Your task to perform on an android device: Check the settings for the Lyft app Image 0: 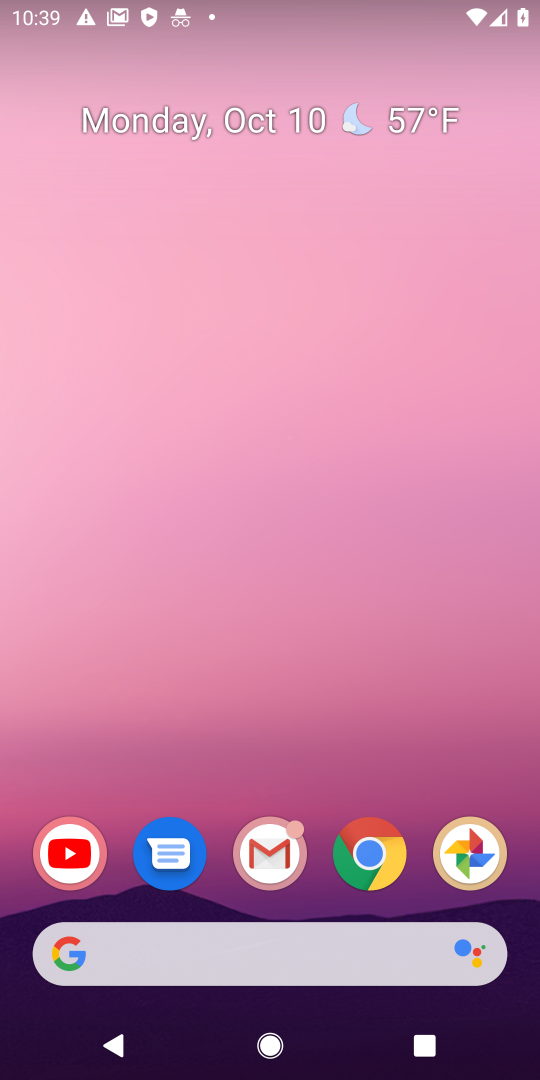
Step 0: press home button
Your task to perform on an android device: Check the settings for the Lyft app Image 1: 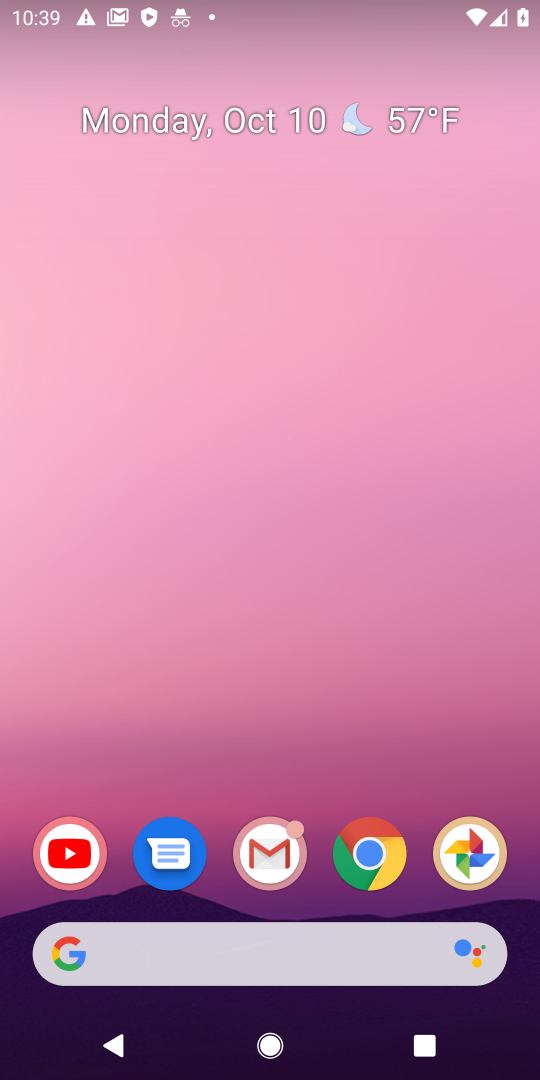
Step 1: drag from (455, 730) to (439, 101)
Your task to perform on an android device: Check the settings for the Lyft app Image 2: 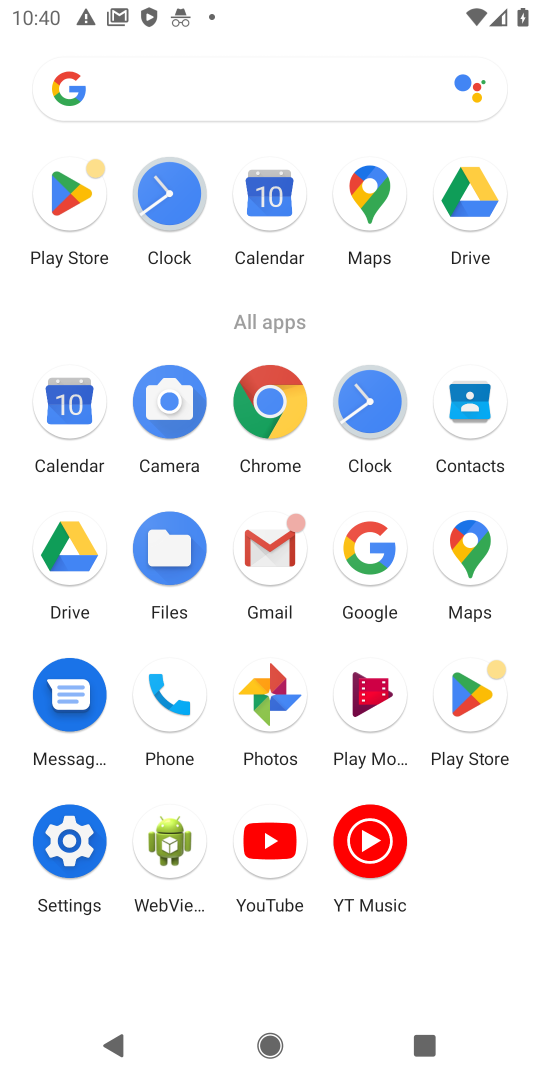
Step 2: click (471, 694)
Your task to perform on an android device: Check the settings for the Lyft app Image 3: 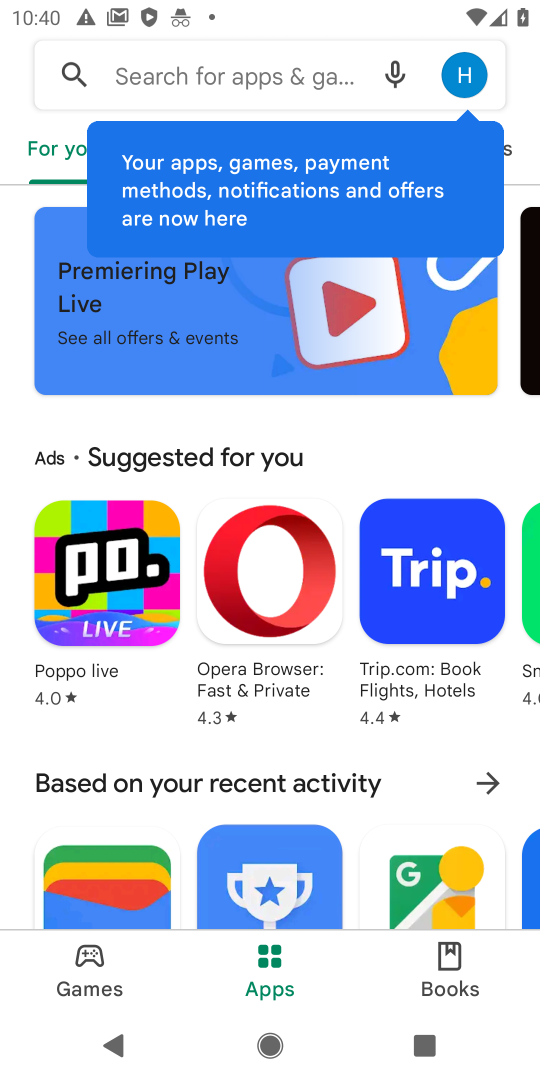
Step 3: click (288, 72)
Your task to perform on an android device: Check the settings for the Lyft app Image 4: 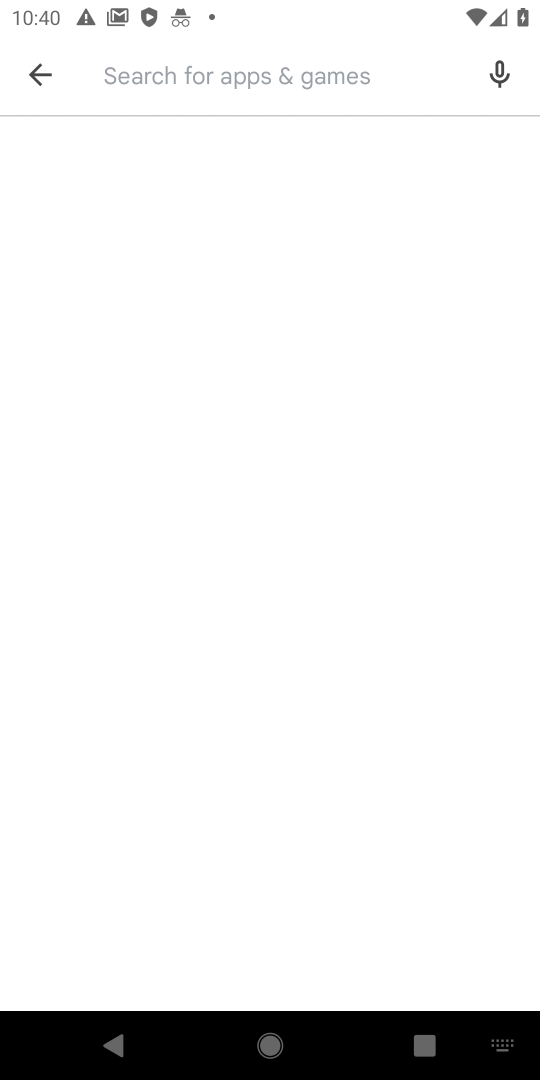
Step 4: type "lyft app"
Your task to perform on an android device: Check the settings for the Lyft app Image 5: 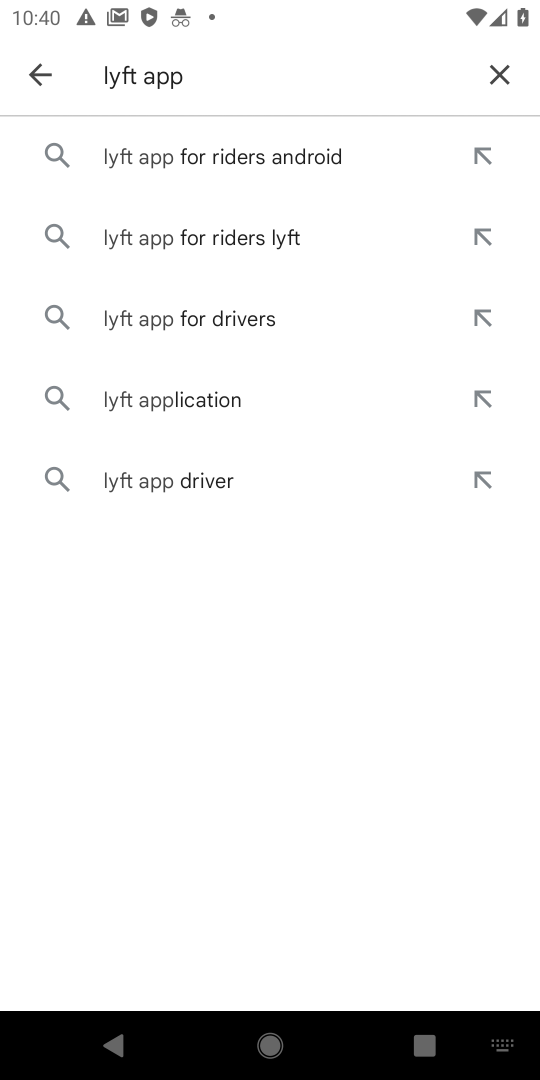
Step 5: press enter
Your task to perform on an android device: Check the settings for the Lyft app Image 6: 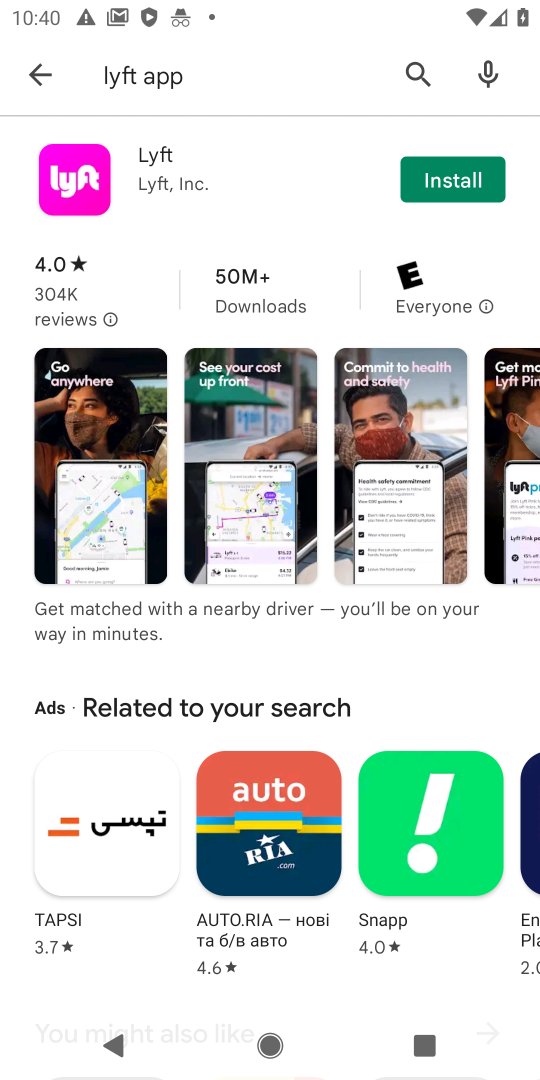
Step 6: task complete